Your task to perform on an android device: turn on airplane mode Image 0: 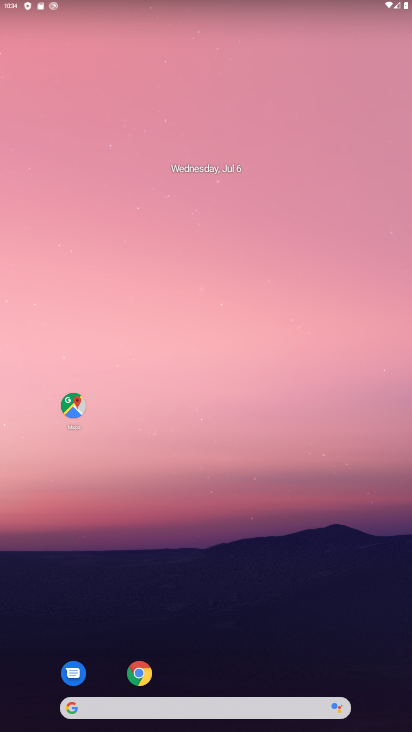
Step 0: drag from (186, 675) to (198, 69)
Your task to perform on an android device: turn on airplane mode Image 1: 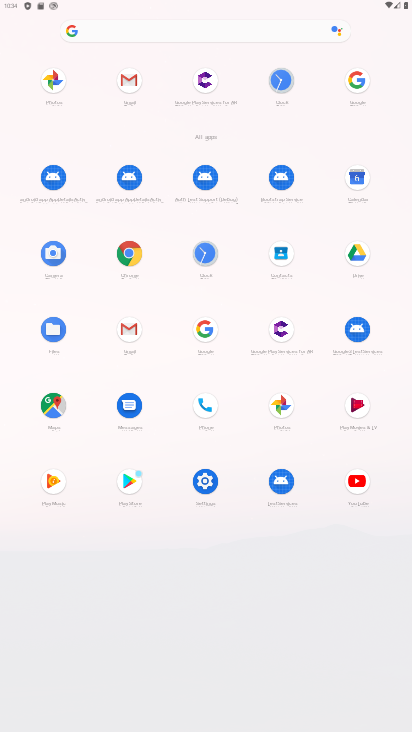
Step 1: click (202, 481)
Your task to perform on an android device: turn on airplane mode Image 2: 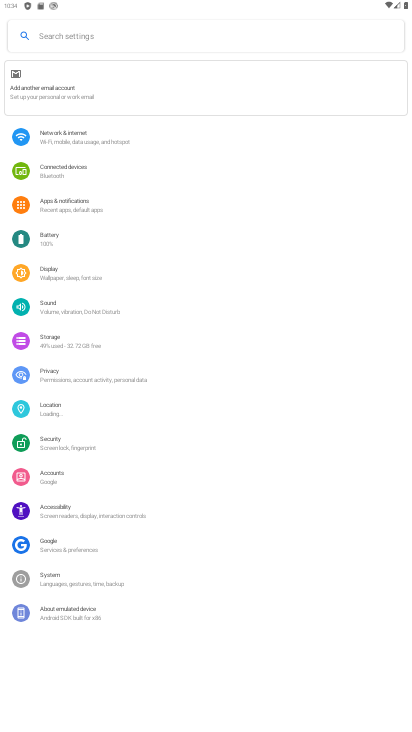
Step 2: click (81, 137)
Your task to perform on an android device: turn on airplane mode Image 3: 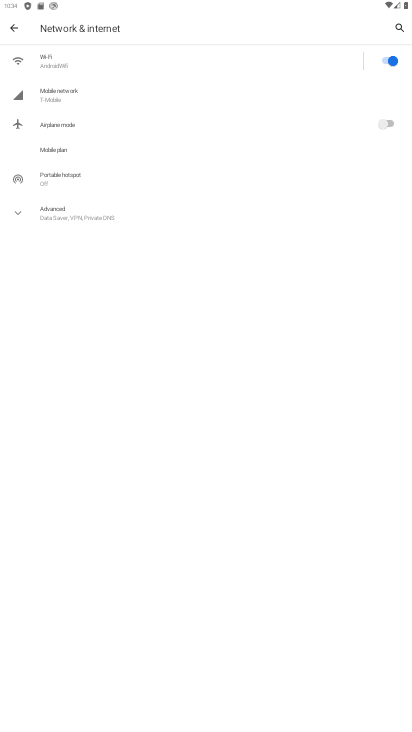
Step 3: click (389, 116)
Your task to perform on an android device: turn on airplane mode Image 4: 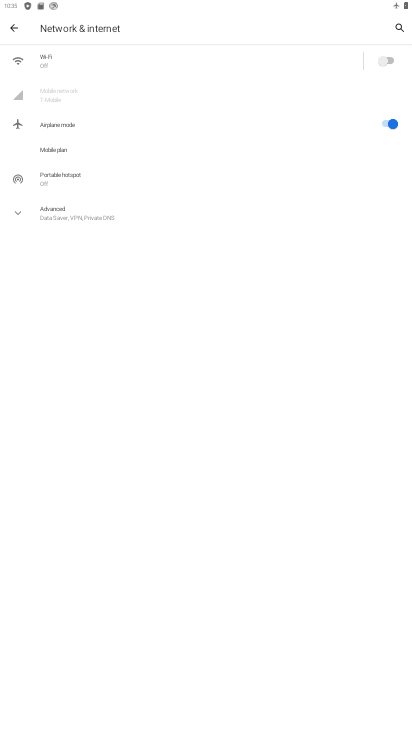
Step 4: task complete